Your task to perform on an android device: Find the nearest electronics store that's open tomorrow Image 0: 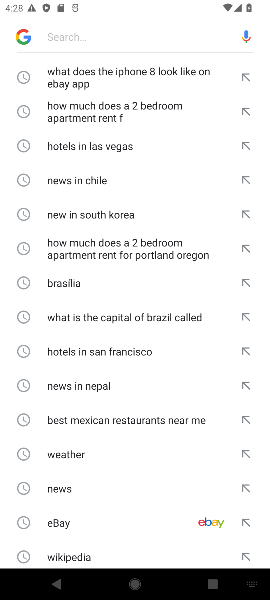
Step 0: click (128, 582)
Your task to perform on an android device: Find the nearest electronics store that's open tomorrow Image 1: 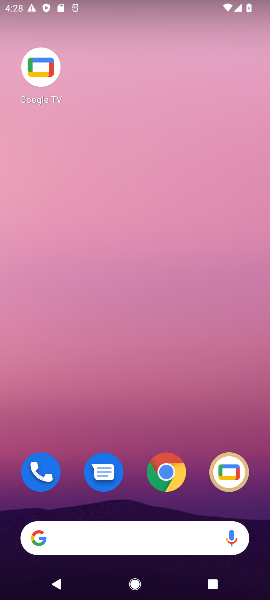
Step 1: click (167, 480)
Your task to perform on an android device: Find the nearest electronics store that's open tomorrow Image 2: 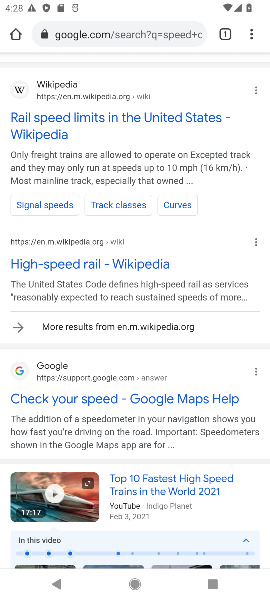
Step 2: drag from (53, 593) to (6, 55)
Your task to perform on an android device: Find the nearest electronics store that's open tomorrow Image 3: 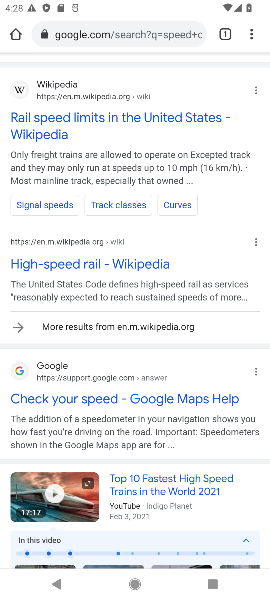
Step 3: click (125, 33)
Your task to perform on an android device: Find the nearest electronics store that's open tomorrow Image 4: 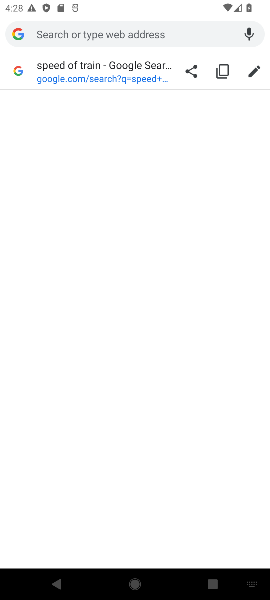
Step 4: type "nearest electronics store that's open tomorrow"
Your task to perform on an android device: Find the nearest electronics store that's open tomorrow Image 5: 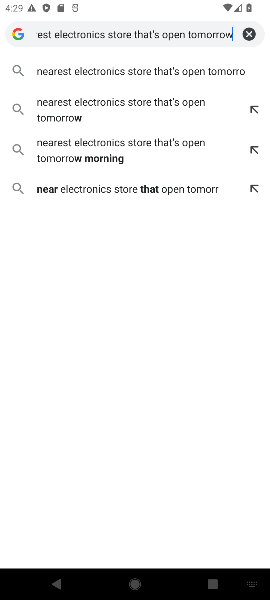
Step 5: press enter
Your task to perform on an android device: Find the nearest electronics store that's open tomorrow Image 6: 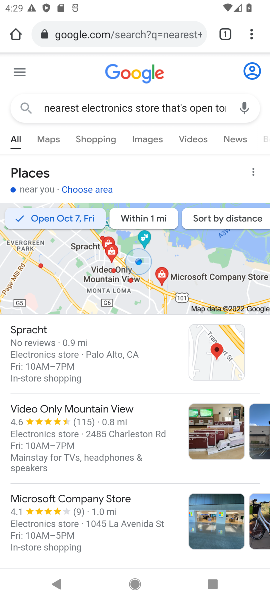
Step 6: drag from (158, 383) to (167, 220)
Your task to perform on an android device: Find the nearest electronics store that's open tomorrow Image 7: 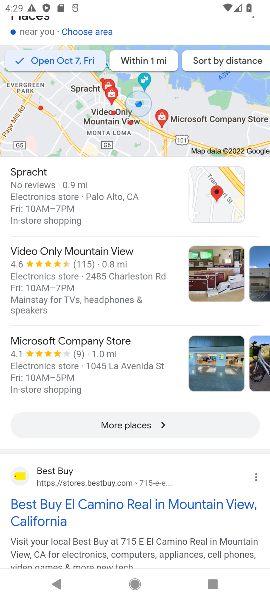
Step 7: click (155, 424)
Your task to perform on an android device: Find the nearest electronics store that's open tomorrow Image 8: 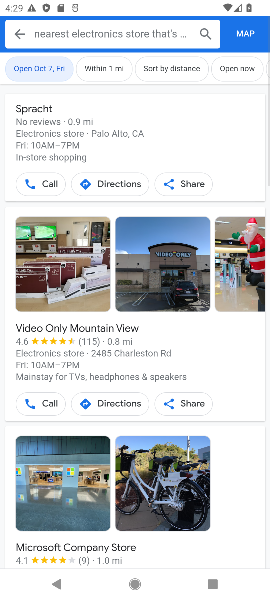
Step 8: click (32, 69)
Your task to perform on an android device: Find the nearest electronics store that's open tomorrow Image 9: 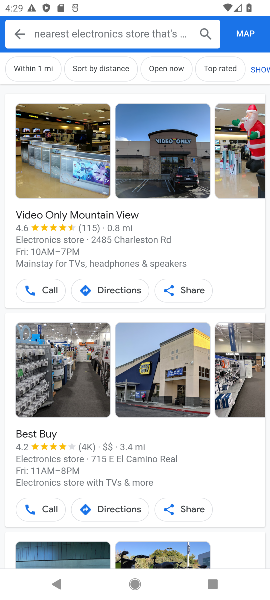
Step 9: task complete